Your task to perform on an android device: turn on improve location accuracy Image 0: 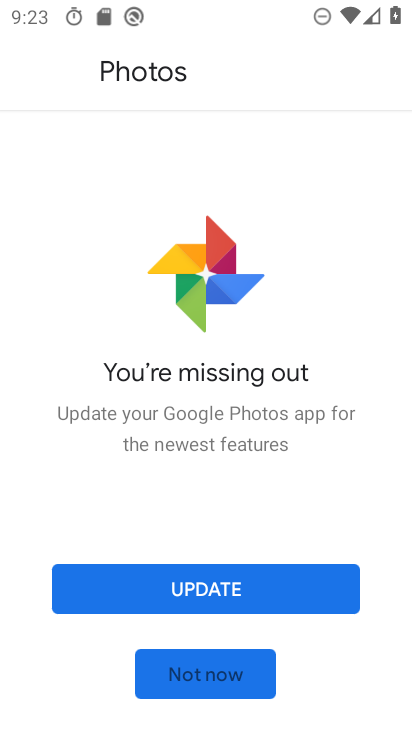
Step 0: press home button
Your task to perform on an android device: turn on improve location accuracy Image 1: 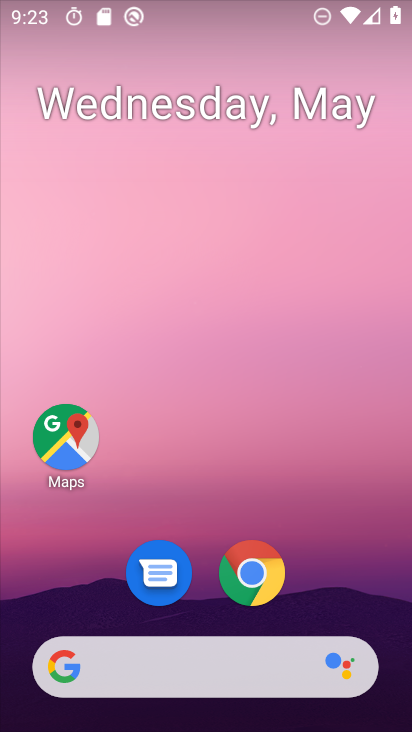
Step 1: drag from (396, 709) to (381, 229)
Your task to perform on an android device: turn on improve location accuracy Image 2: 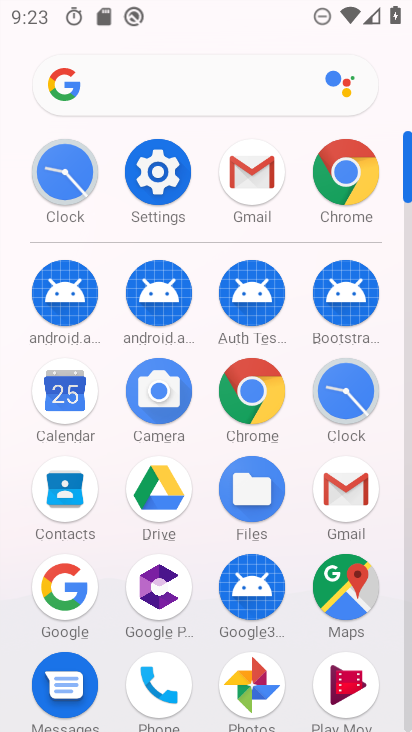
Step 2: click (145, 168)
Your task to perform on an android device: turn on improve location accuracy Image 3: 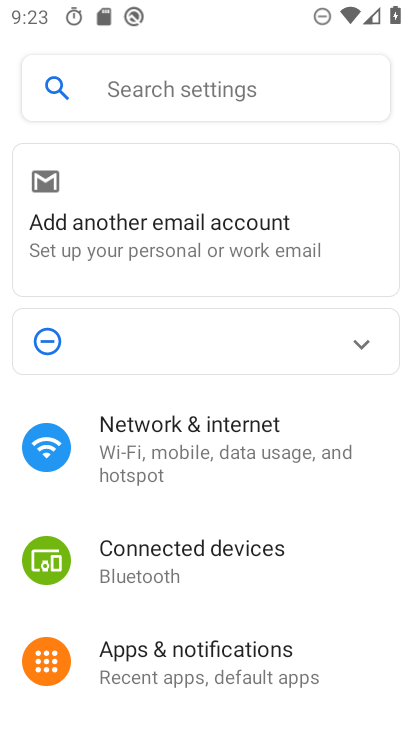
Step 3: drag from (304, 710) to (316, 254)
Your task to perform on an android device: turn on improve location accuracy Image 4: 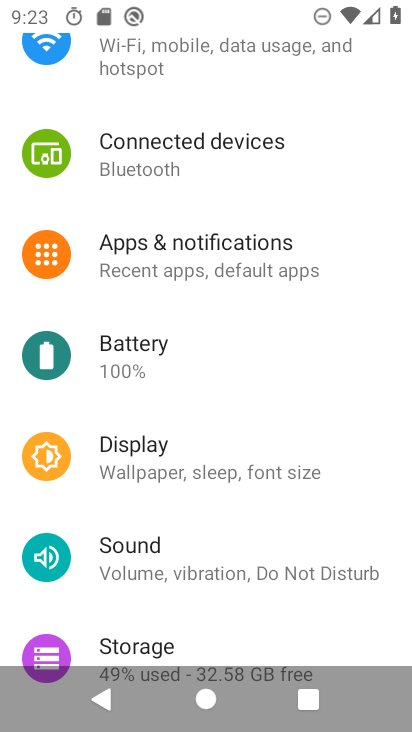
Step 4: drag from (289, 613) to (284, 257)
Your task to perform on an android device: turn on improve location accuracy Image 5: 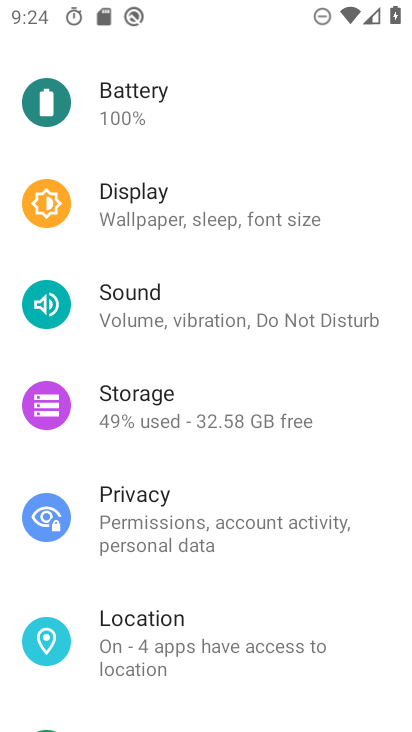
Step 5: drag from (267, 691) to (264, 417)
Your task to perform on an android device: turn on improve location accuracy Image 6: 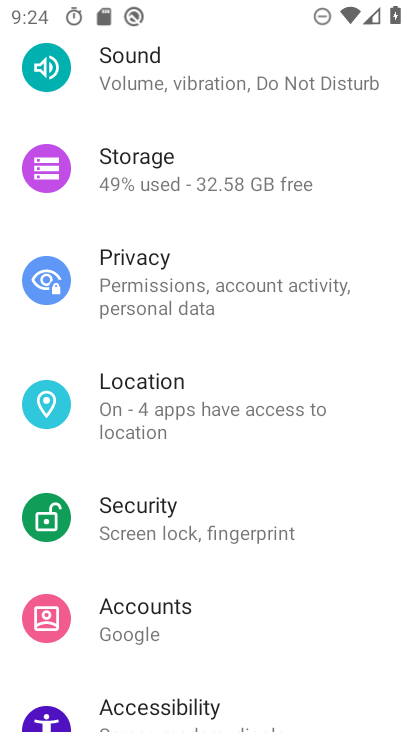
Step 6: click (150, 392)
Your task to perform on an android device: turn on improve location accuracy Image 7: 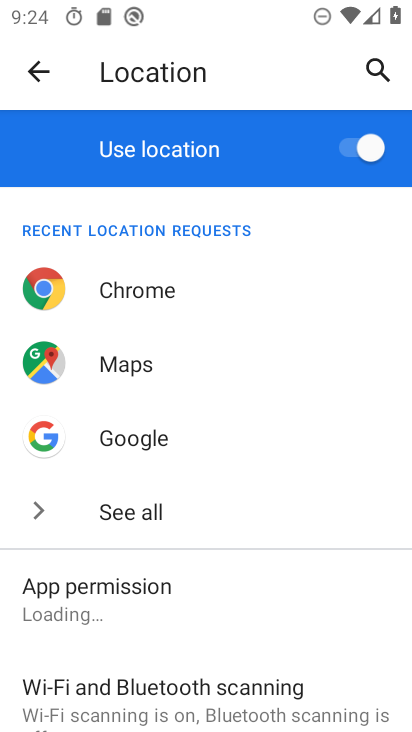
Step 7: drag from (334, 656) to (316, 244)
Your task to perform on an android device: turn on improve location accuracy Image 8: 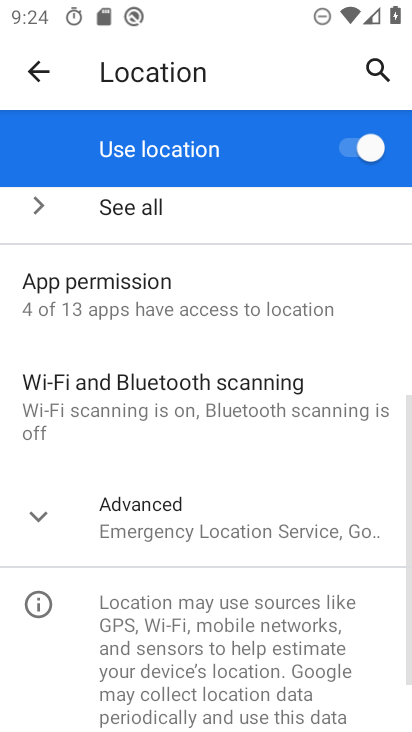
Step 8: click (47, 519)
Your task to perform on an android device: turn on improve location accuracy Image 9: 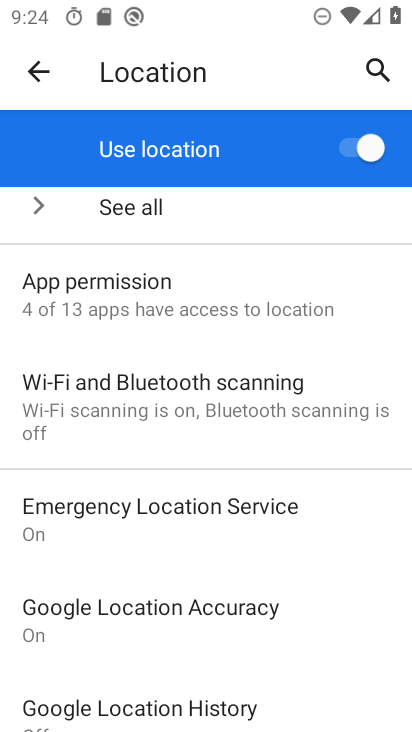
Step 9: drag from (323, 696) to (311, 390)
Your task to perform on an android device: turn on improve location accuracy Image 10: 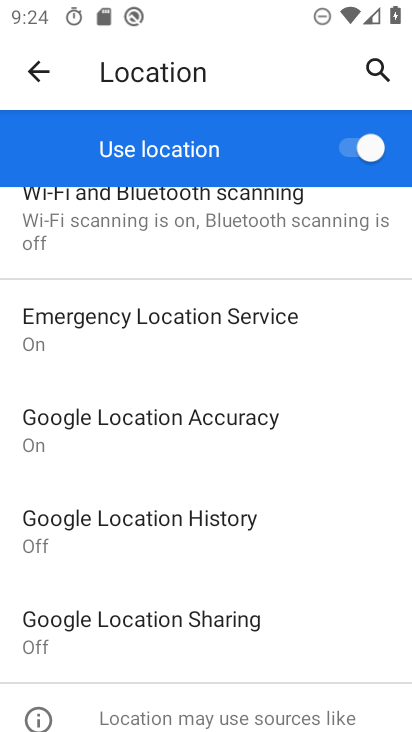
Step 10: click (62, 424)
Your task to perform on an android device: turn on improve location accuracy Image 11: 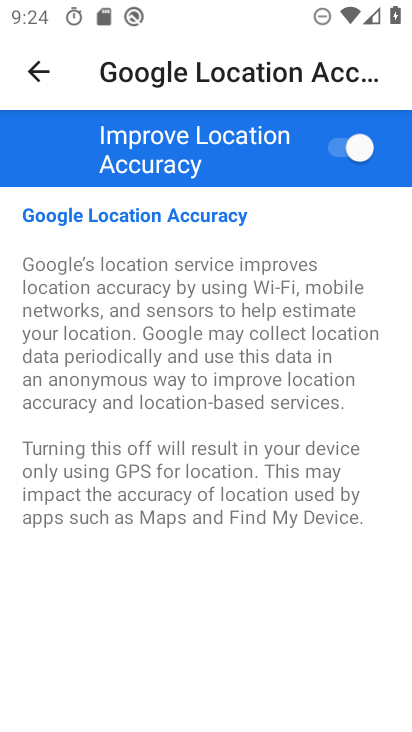
Step 11: task complete